Your task to perform on an android device: Open Maps and search for coffee Image 0: 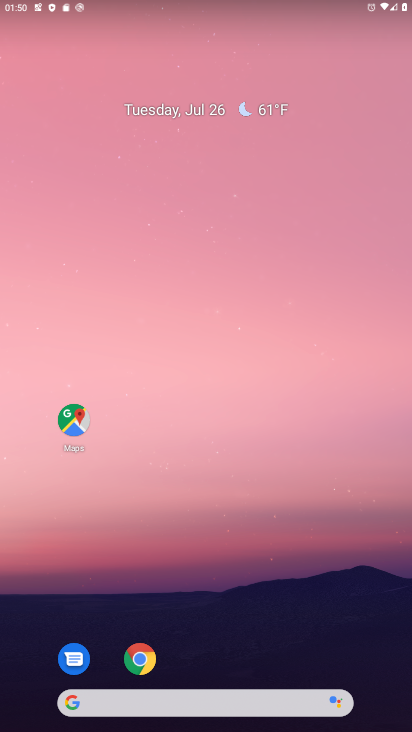
Step 0: drag from (281, 545) to (247, 0)
Your task to perform on an android device: Open Maps and search for coffee Image 1: 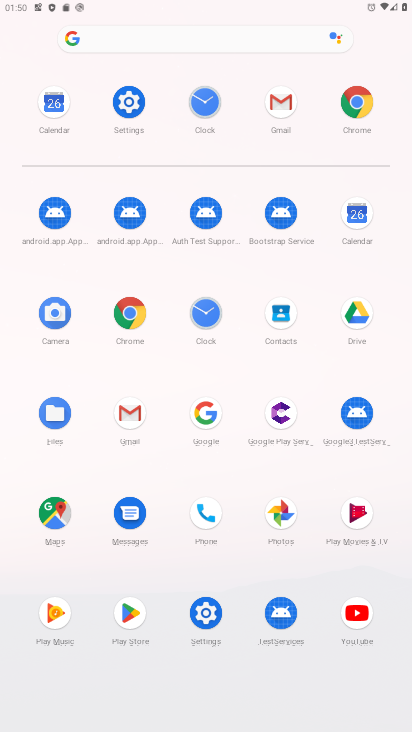
Step 1: click (58, 502)
Your task to perform on an android device: Open Maps and search for coffee Image 2: 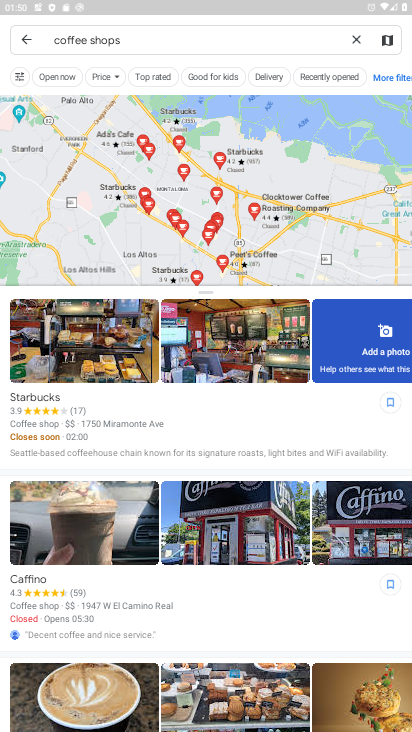
Step 2: click (237, 30)
Your task to perform on an android device: Open Maps and search for coffee Image 3: 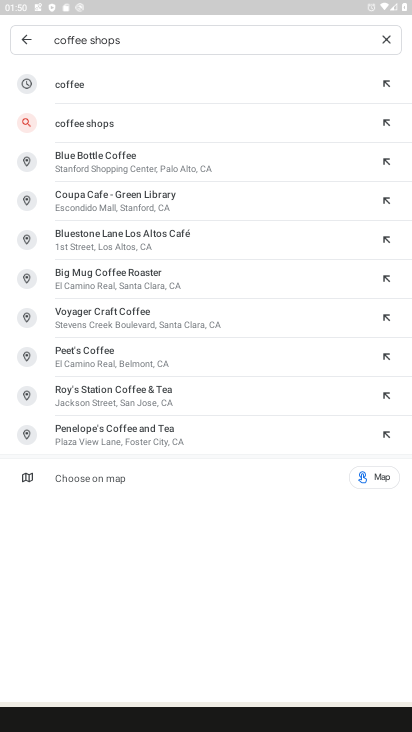
Step 3: click (381, 32)
Your task to perform on an android device: Open Maps and search for coffee Image 4: 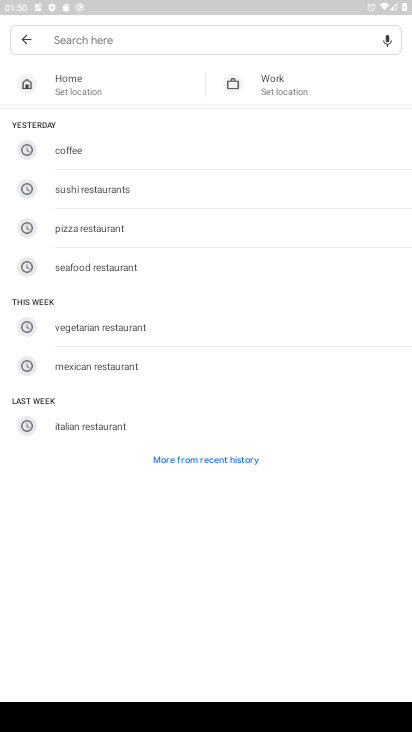
Step 4: type "coffee"
Your task to perform on an android device: Open Maps and search for coffee Image 5: 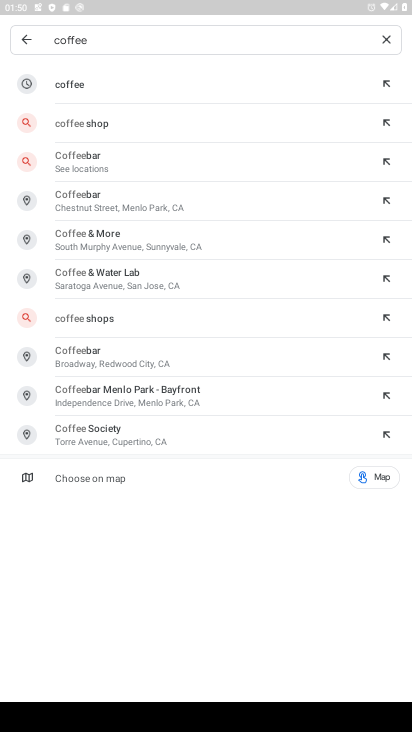
Step 5: click (94, 84)
Your task to perform on an android device: Open Maps and search for coffee Image 6: 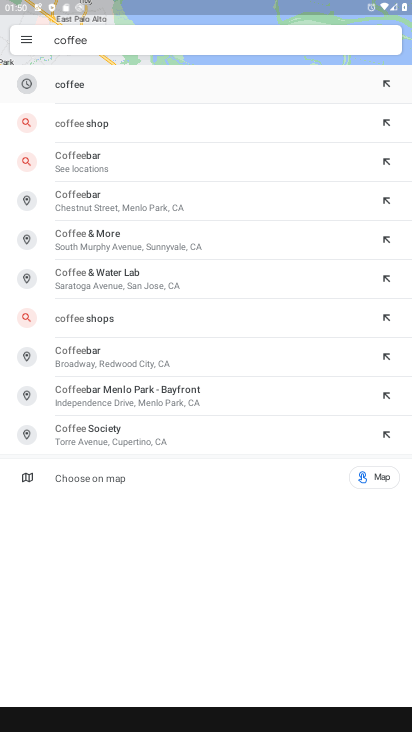
Step 6: click (79, 84)
Your task to perform on an android device: Open Maps and search for coffee Image 7: 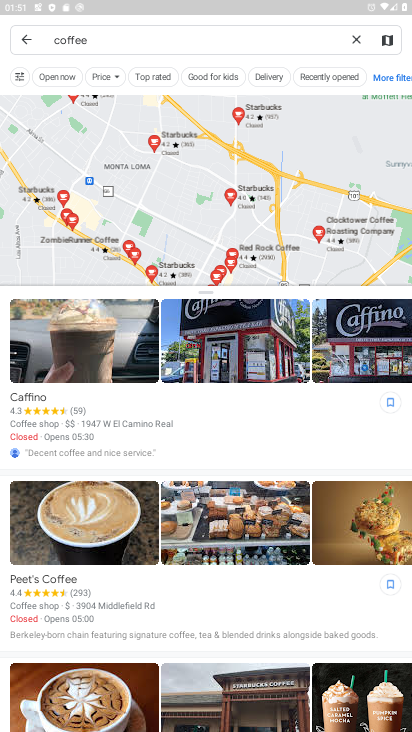
Step 7: task complete